Your task to perform on an android device: Open network settings Image 0: 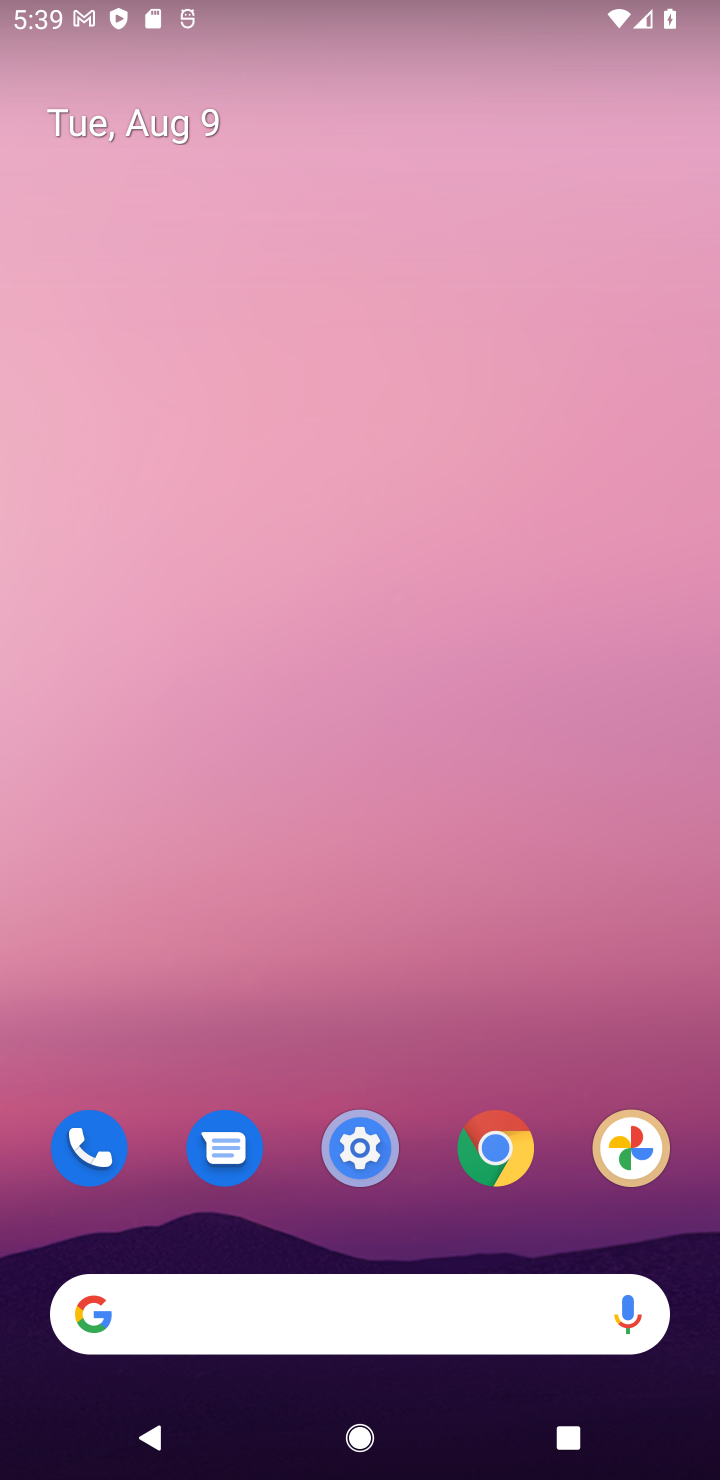
Step 0: click (360, 1141)
Your task to perform on an android device: Open network settings Image 1: 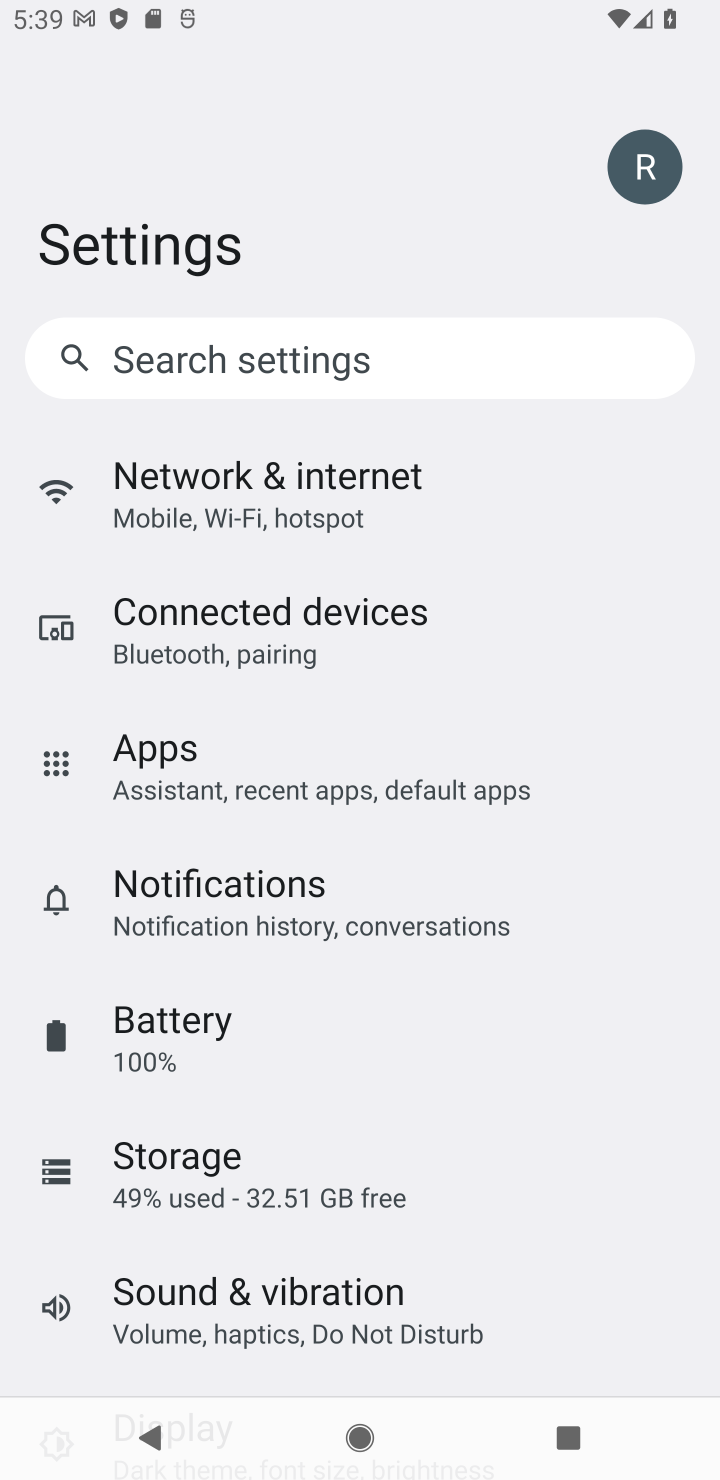
Step 1: click (300, 519)
Your task to perform on an android device: Open network settings Image 2: 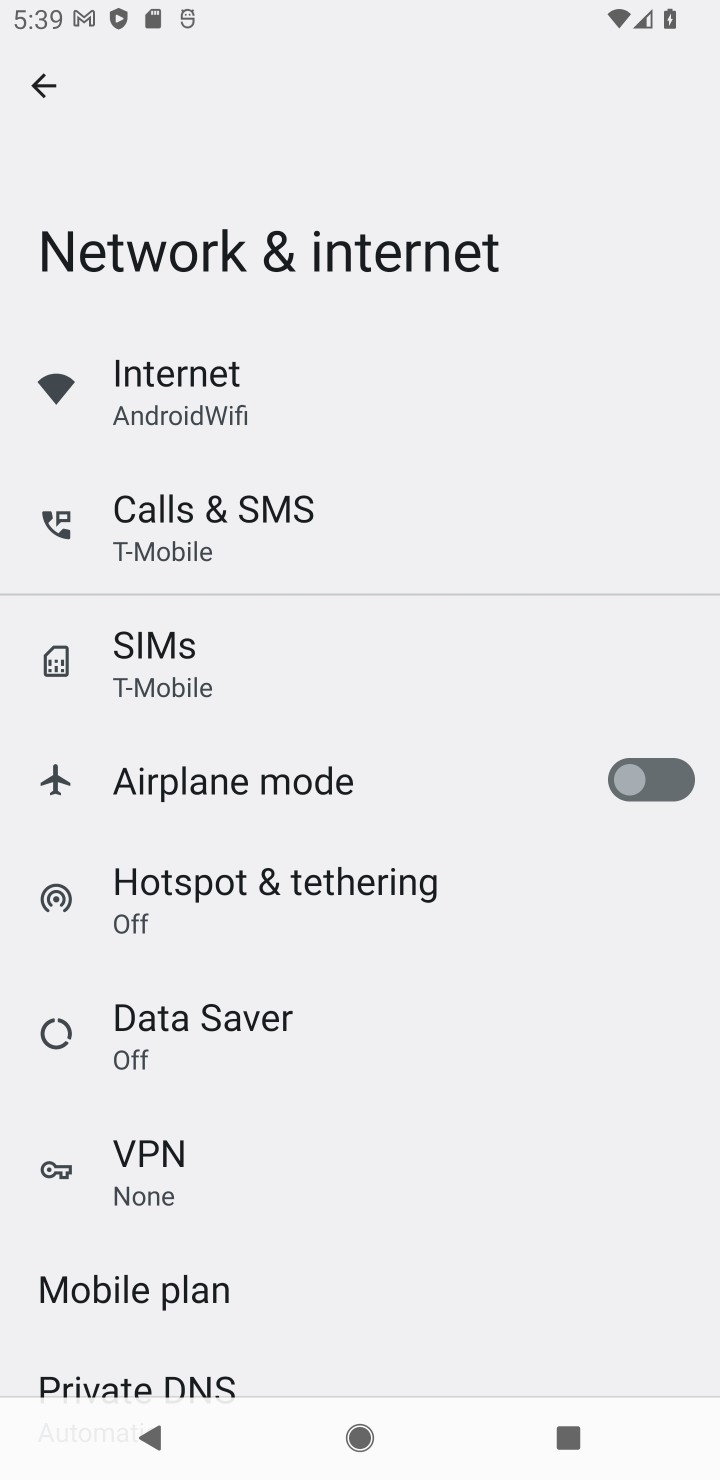
Step 2: task complete